Your task to perform on an android device: check out phone information Image 0: 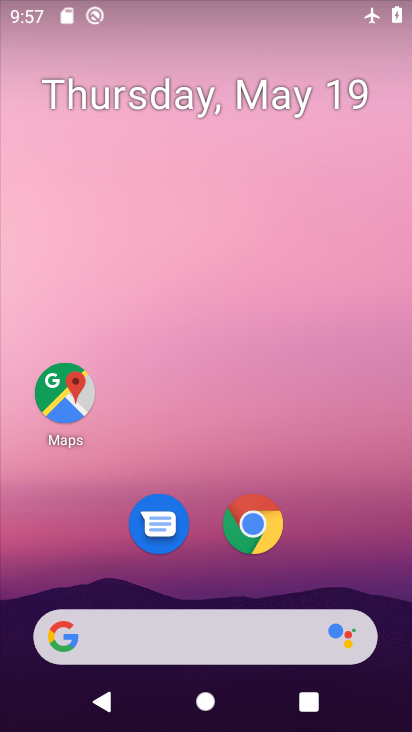
Step 0: drag from (339, 499) to (361, 19)
Your task to perform on an android device: check out phone information Image 1: 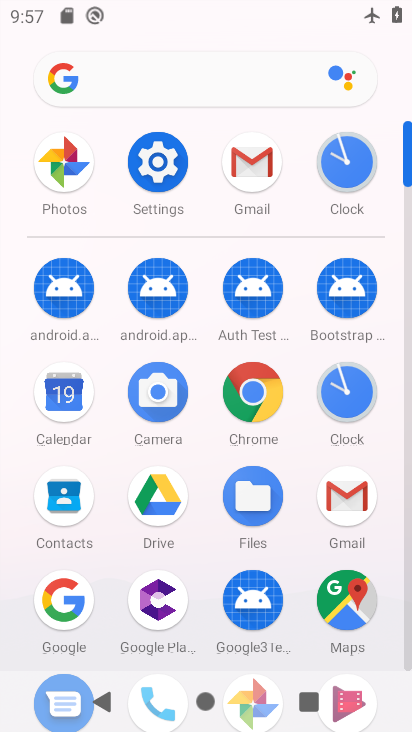
Step 1: drag from (205, 417) to (187, 177)
Your task to perform on an android device: check out phone information Image 2: 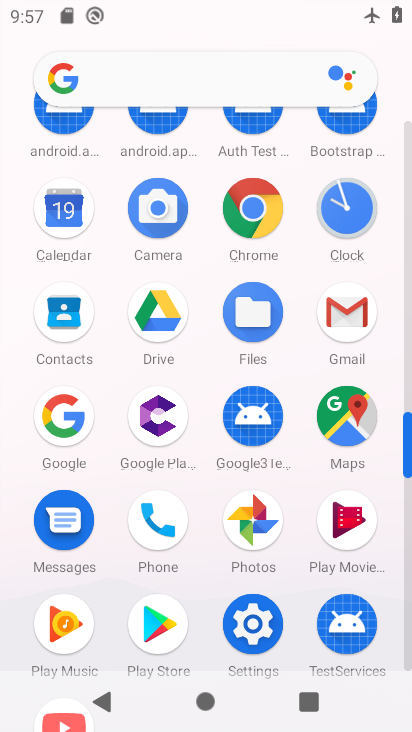
Step 2: click (157, 513)
Your task to perform on an android device: check out phone information Image 3: 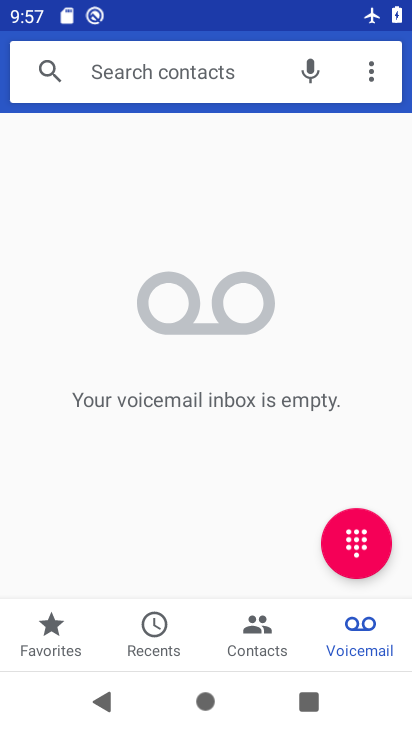
Step 3: click (371, 77)
Your task to perform on an android device: check out phone information Image 4: 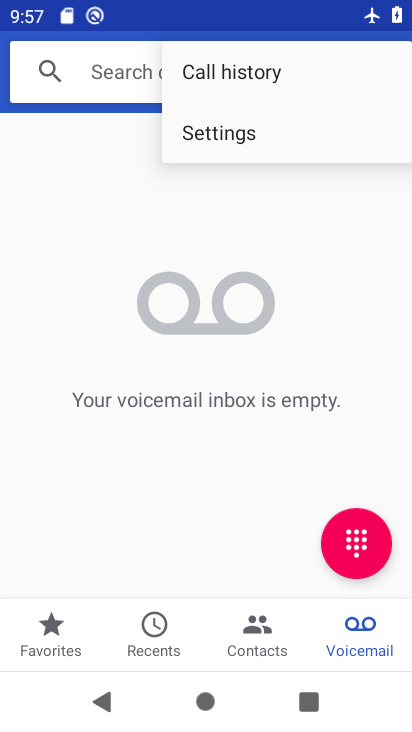
Step 4: click (288, 136)
Your task to perform on an android device: check out phone information Image 5: 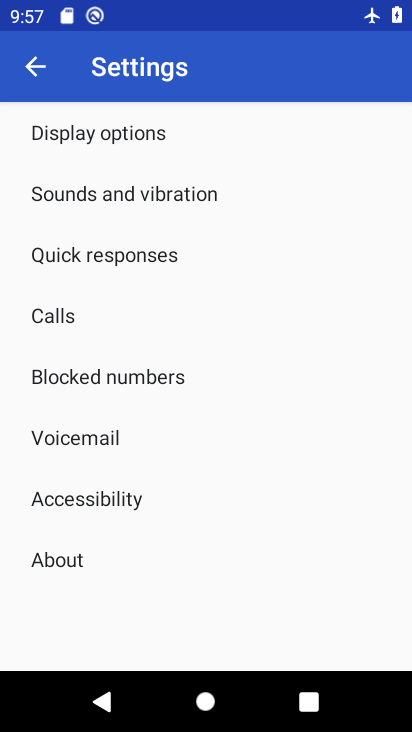
Step 5: click (63, 557)
Your task to perform on an android device: check out phone information Image 6: 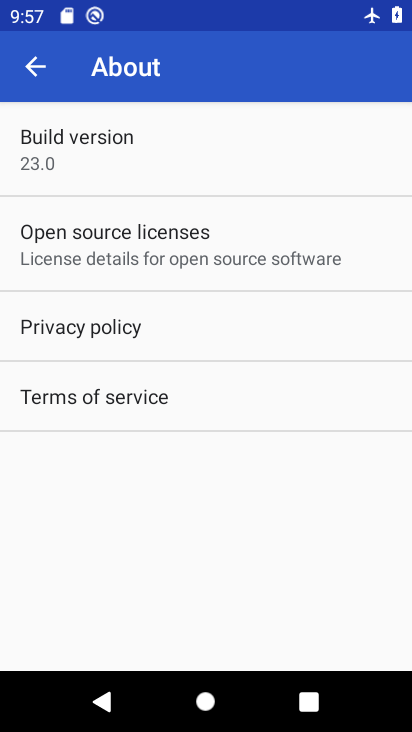
Step 6: task complete